Your task to perform on an android device: turn pop-ups off in chrome Image 0: 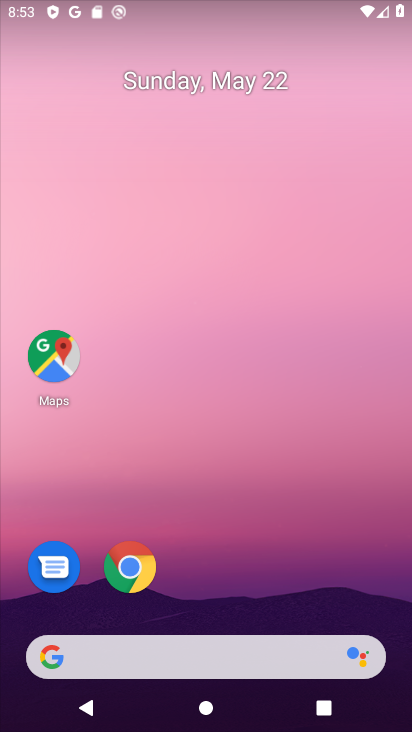
Step 0: click (145, 573)
Your task to perform on an android device: turn pop-ups off in chrome Image 1: 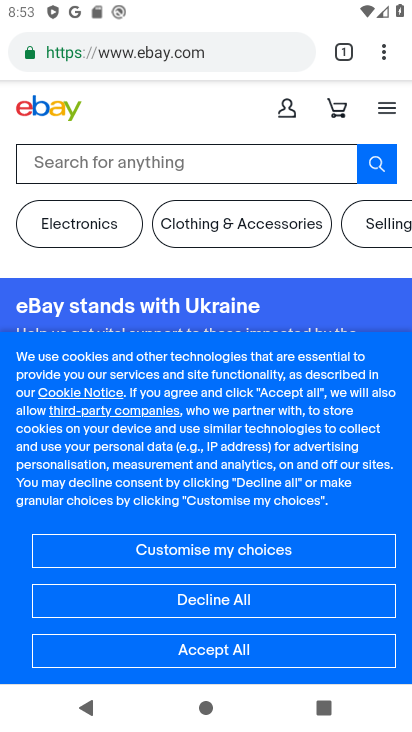
Step 1: click (383, 51)
Your task to perform on an android device: turn pop-ups off in chrome Image 2: 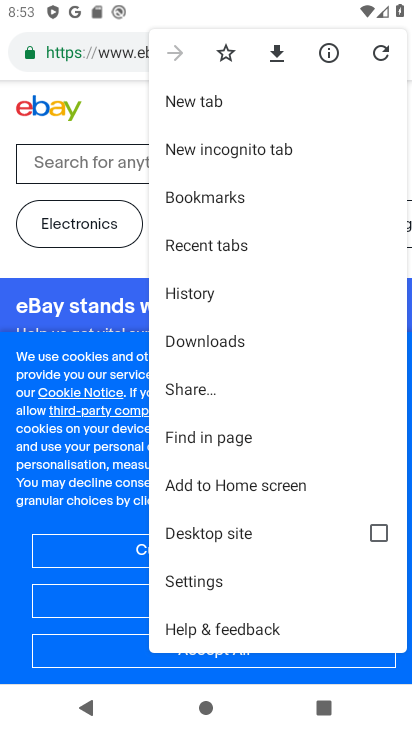
Step 2: click (204, 581)
Your task to perform on an android device: turn pop-ups off in chrome Image 3: 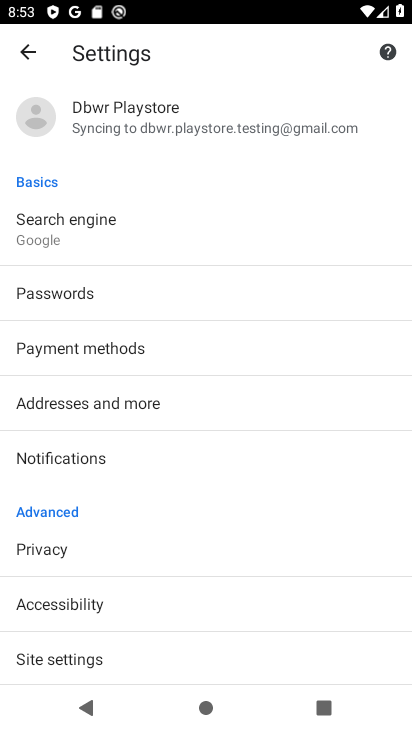
Step 3: drag from (94, 622) to (140, 294)
Your task to perform on an android device: turn pop-ups off in chrome Image 4: 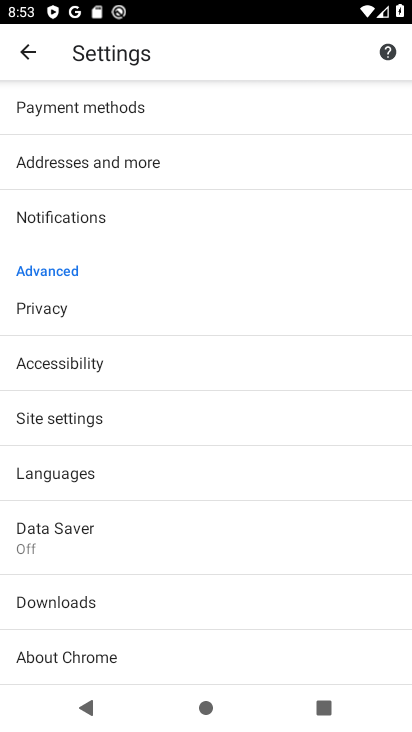
Step 4: click (84, 423)
Your task to perform on an android device: turn pop-ups off in chrome Image 5: 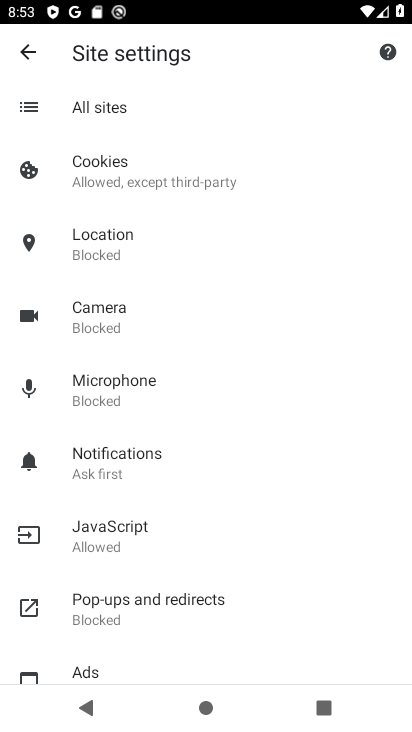
Step 5: click (141, 594)
Your task to perform on an android device: turn pop-ups off in chrome Image 6: 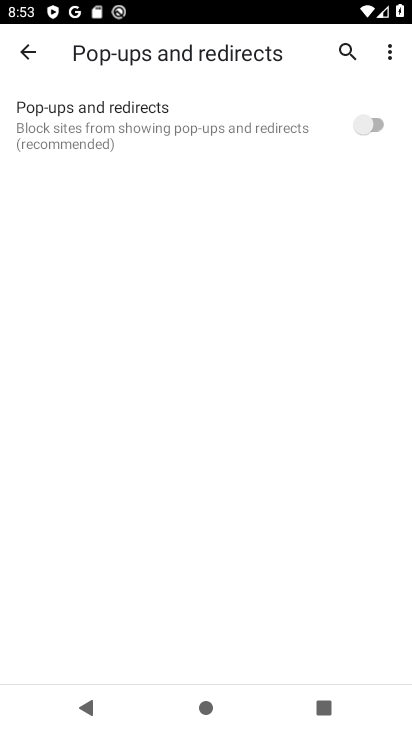
Step 6: task complete